Your task to perform on an android device: Open accessibility settings Image 0: 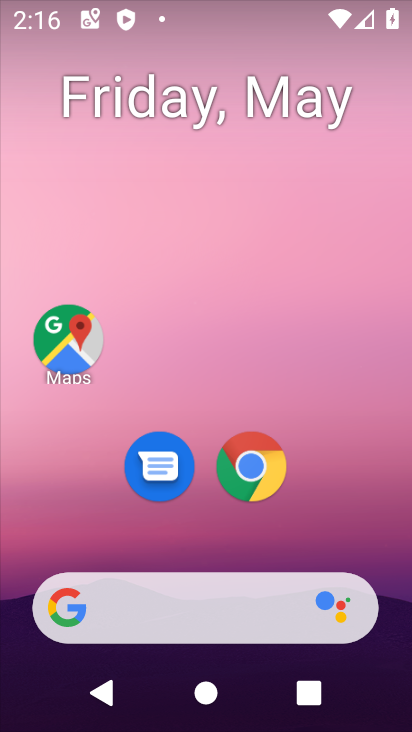
Step 0: drag from (225, 561) to (329, 60)
Your task to perform on an android device: Open accessibility settings Image 1: 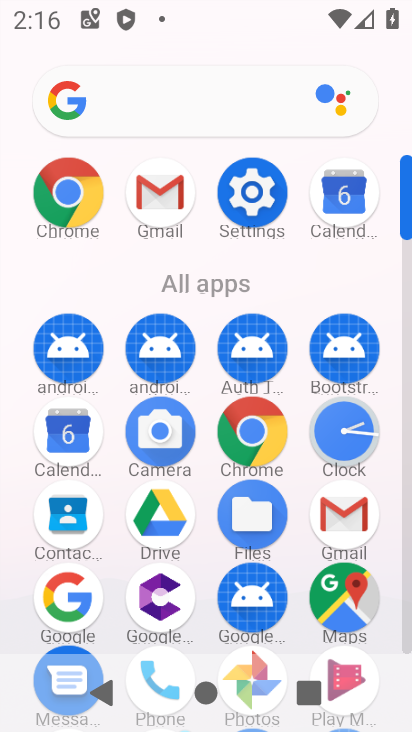
Step 1: click (250, 189)
Your task to perform on an android device: Open accessibility settings Image 2: 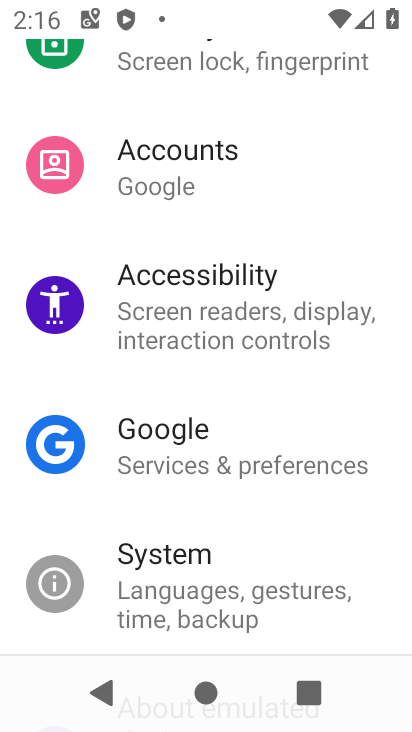
Step 2: click (167, 300)
Your task to perform on an android device: Open accessibility settings Image 3: 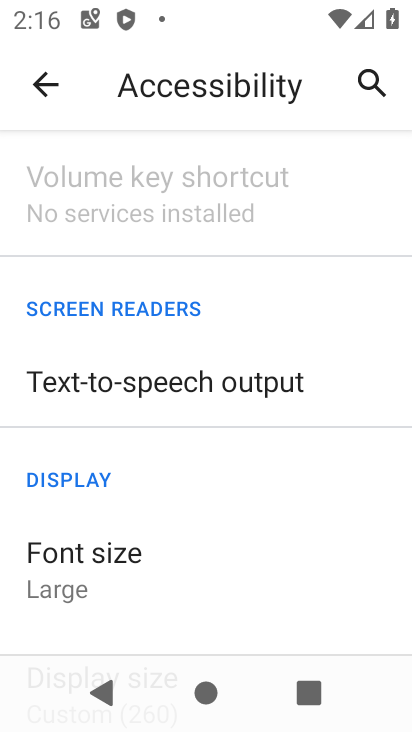
Step 3: task complete